Your task to perform on an android device: Open Android settings Image 0: 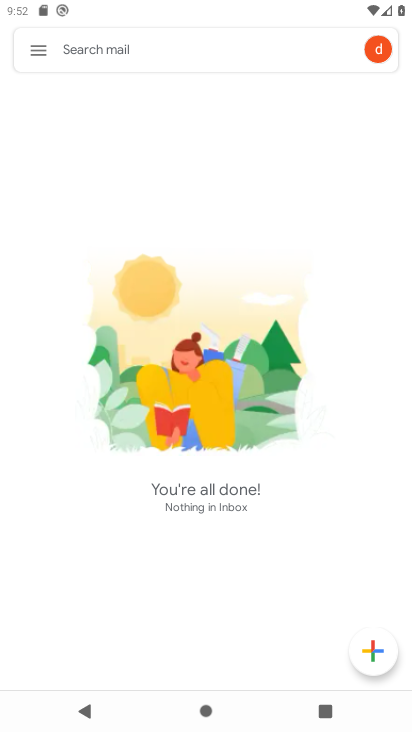
Step 0: press back button
Your task to perform on an android device: Open Android settings Image 1: 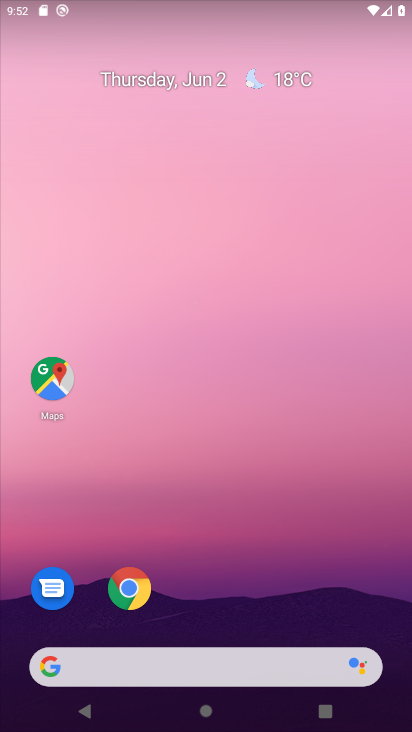
Step 1: drag from (271, 710) to (145, 9)
Your task to perform on an android device: Open Android settings Image 2: 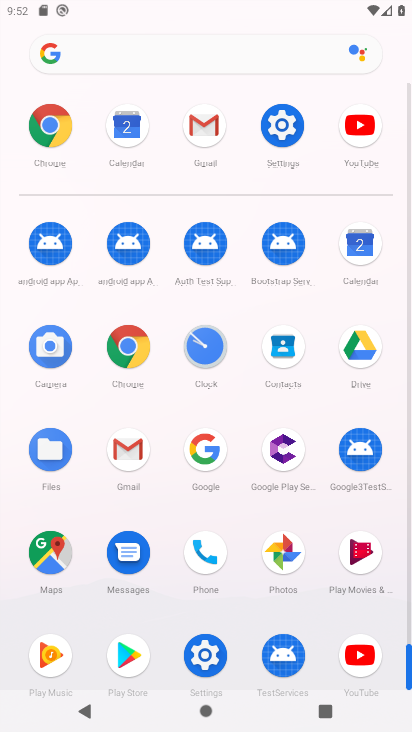
Step 2: click (279, 131)
Your task to perform on an android device: Open Android settings Image 3: 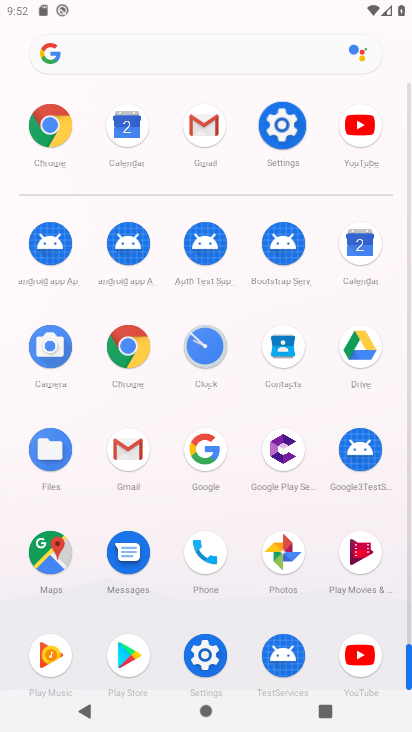
Step 3: click (279, 130)
Your task to perform on an android device: Open Android settings Image 4: 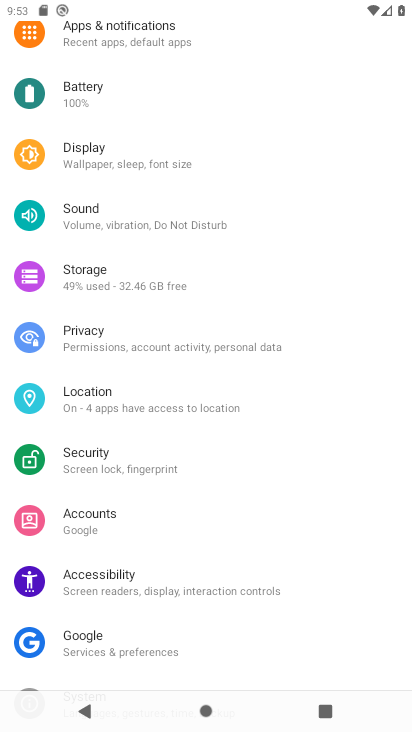
Step 4: drag from (99, 120) to (190, 425)
Your task to perform on an android device: Open Android settings Image 5: 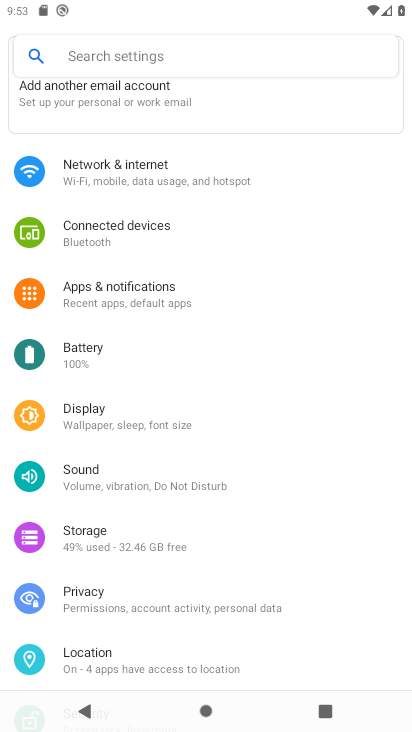
Step 5: drag from (86, 123) to (162, 422)
Your task to perform on an android device: Open Android settings Image 6: 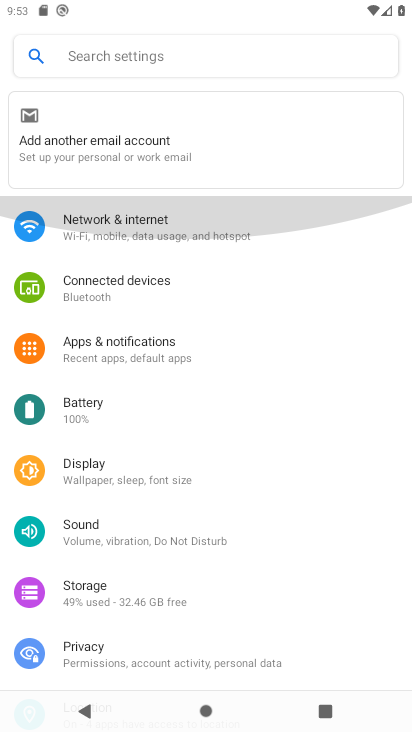
Step 6: drag from (119, 166) to (142, 498)
Your task to perform on an android device: Open Android settings Image 7: 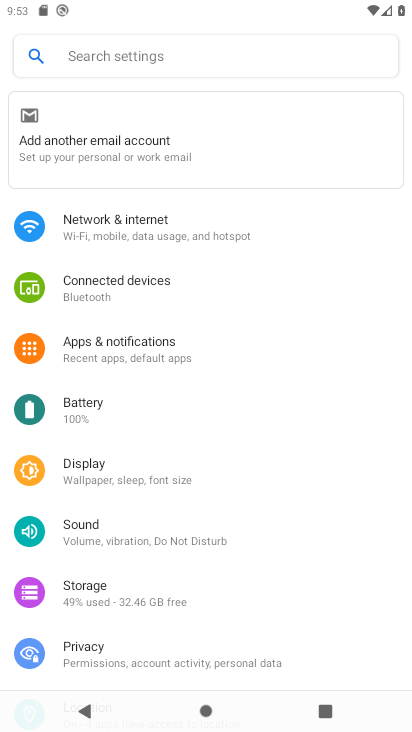
Step 7: drag from (137, 531) to (129, 211)
Your task to perform on an android device: Open Android settings Image 8: 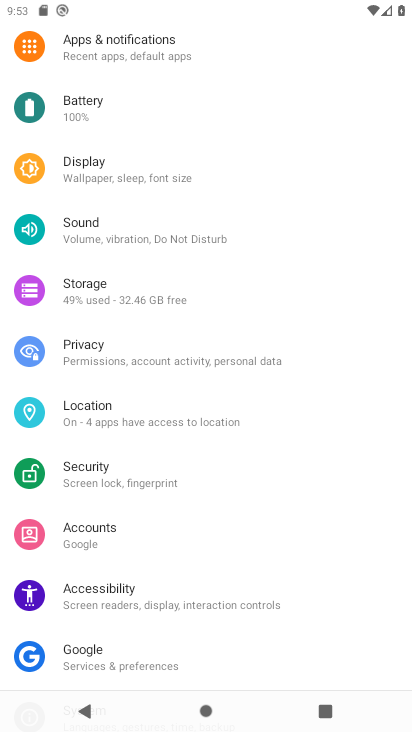
Step 8: drag from (196, 472) to (196, 195)
Your task to perform on an android device: Open Android settings Image 9: 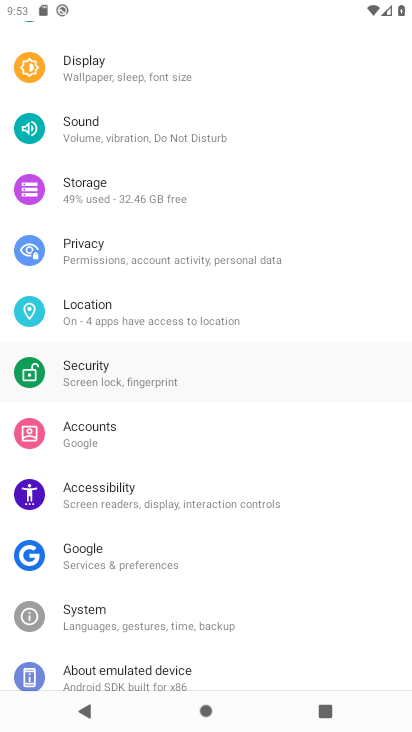
Step 9: drag from (185, 471) to (205, 105)
Your task to perform on an android device: Open Android settings Image 10: 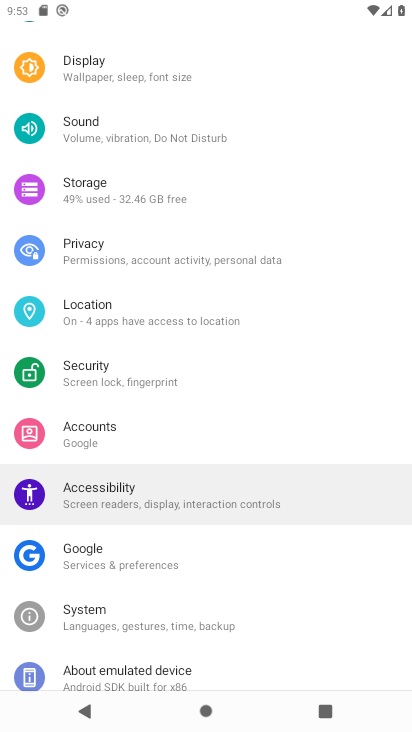
Step 10: drag from (152, 512) to (142, 153)
Your task to perform on an android device: Open Android settings Image 11: 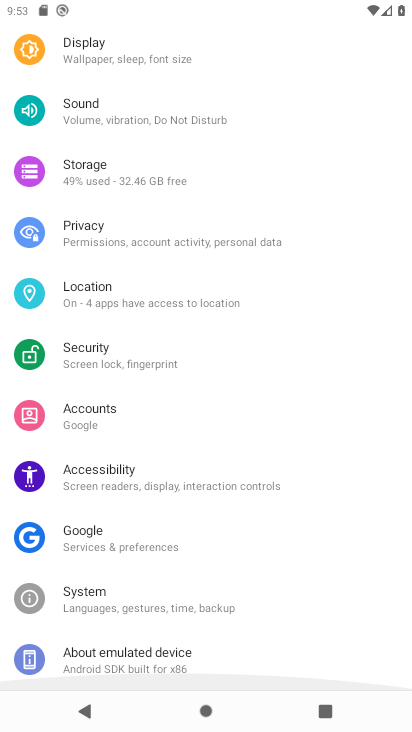
Step 11: drag from (146, 559) to (142, 191)
Your task to perform on an android device: Open Android settings Image 12: 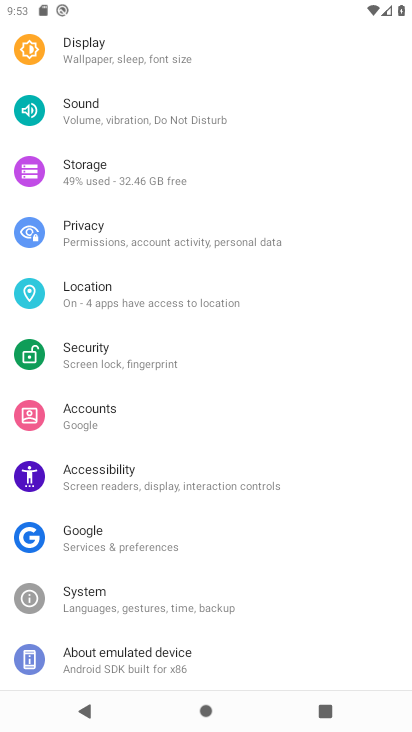
Step 12: click (125, 666)
Your task to perform on an android device: Open Android settings Image 13: 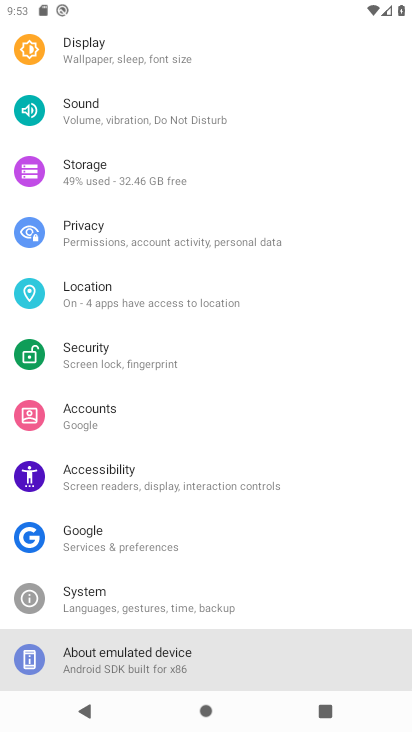
Step 13: click (128, 659)
Your task to perform on an android device: Open Android settings Image 14: 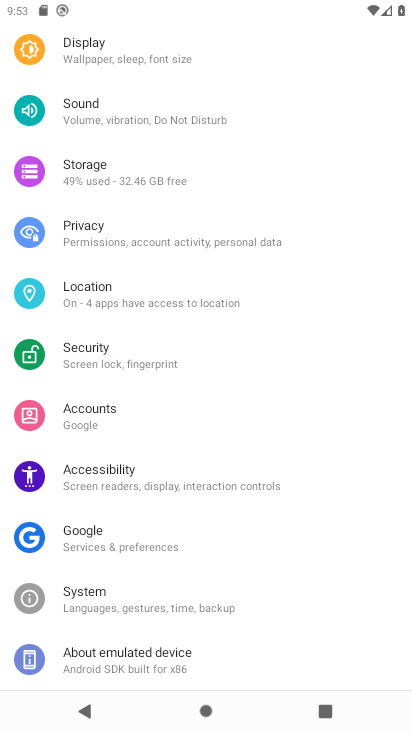
Step 14: click (128, 659)
Your task to perform on an android device: Open Android settings Image 15: 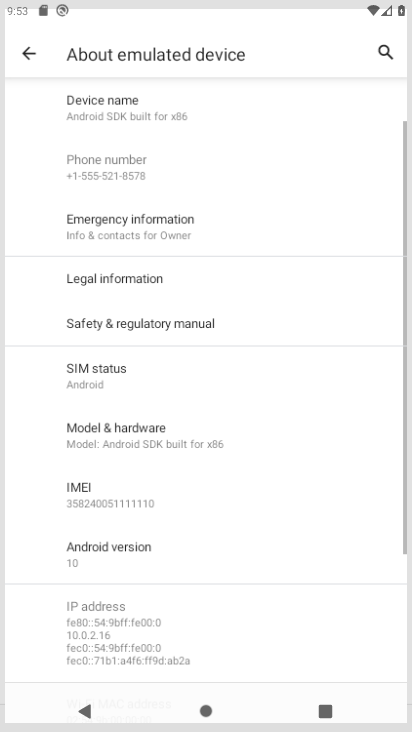
Step 15: click (128, 659)
Your task to perform on an android device: Open Android settings Image 16: 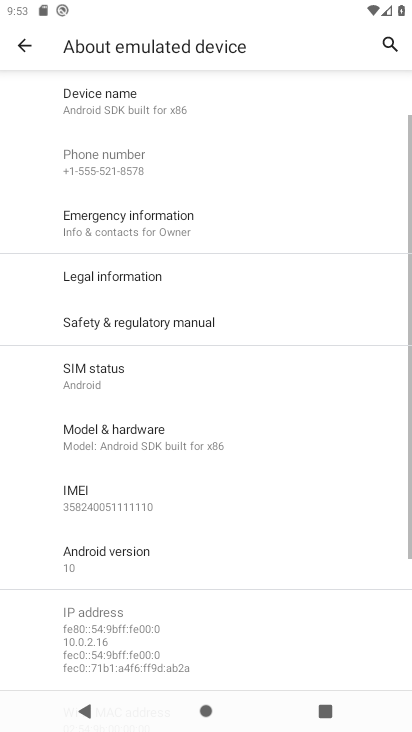
Step 16: drag from (122, 360) to (98, 92)
Your task to perform on an android device: Open Android settings Image 17: 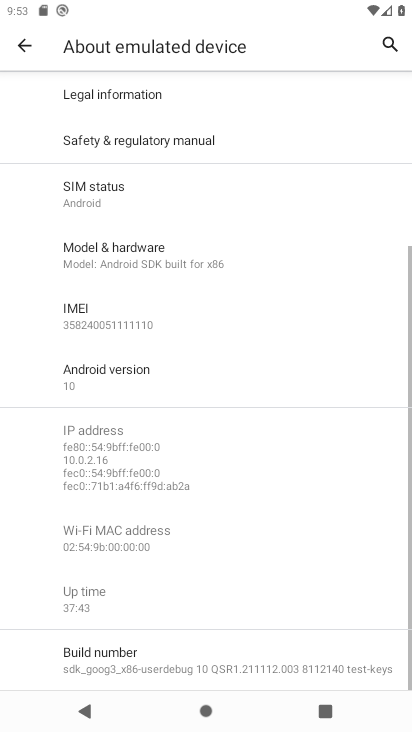
Step 17: drag from (140, 423) to (74, 1)
Your task to perform on an android device: Open Android settings Image 18: 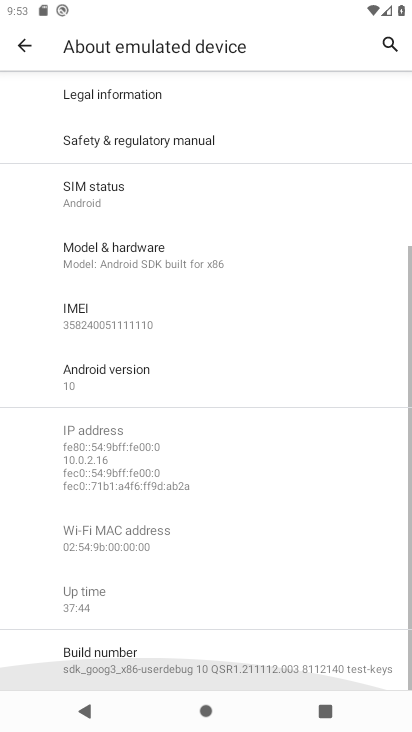
Step 18: drag from (59, 379) to (95, 32)
Your task to perform on an android device: Open Android settings Image 19: 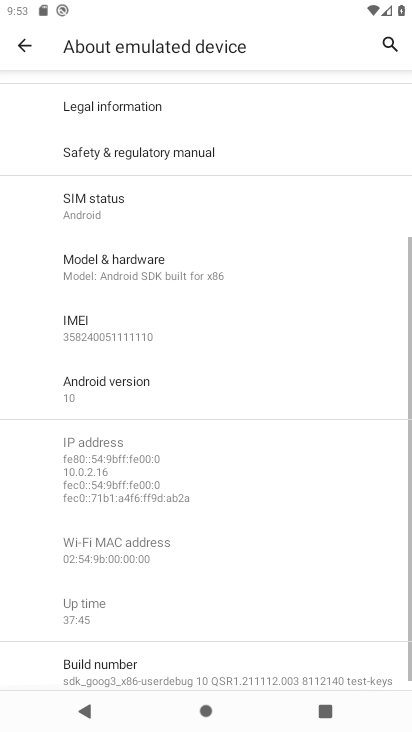
Step 19: click (117, 73)
Your task to perform on an android device: Open Android settings Image 20: 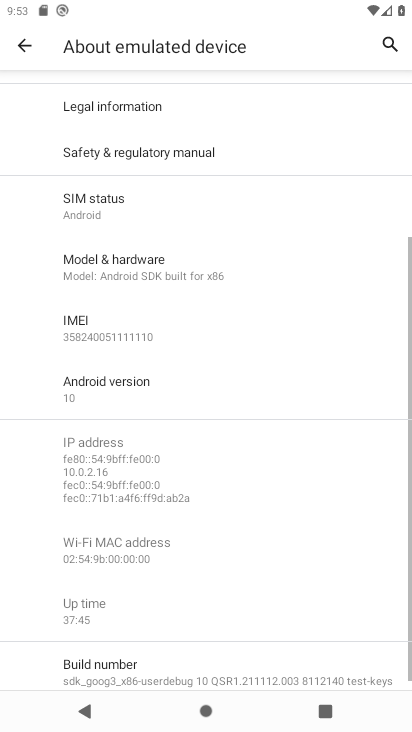
Step 20: task complete